Your task to perform on an android device: Open Google Maps Image 0: 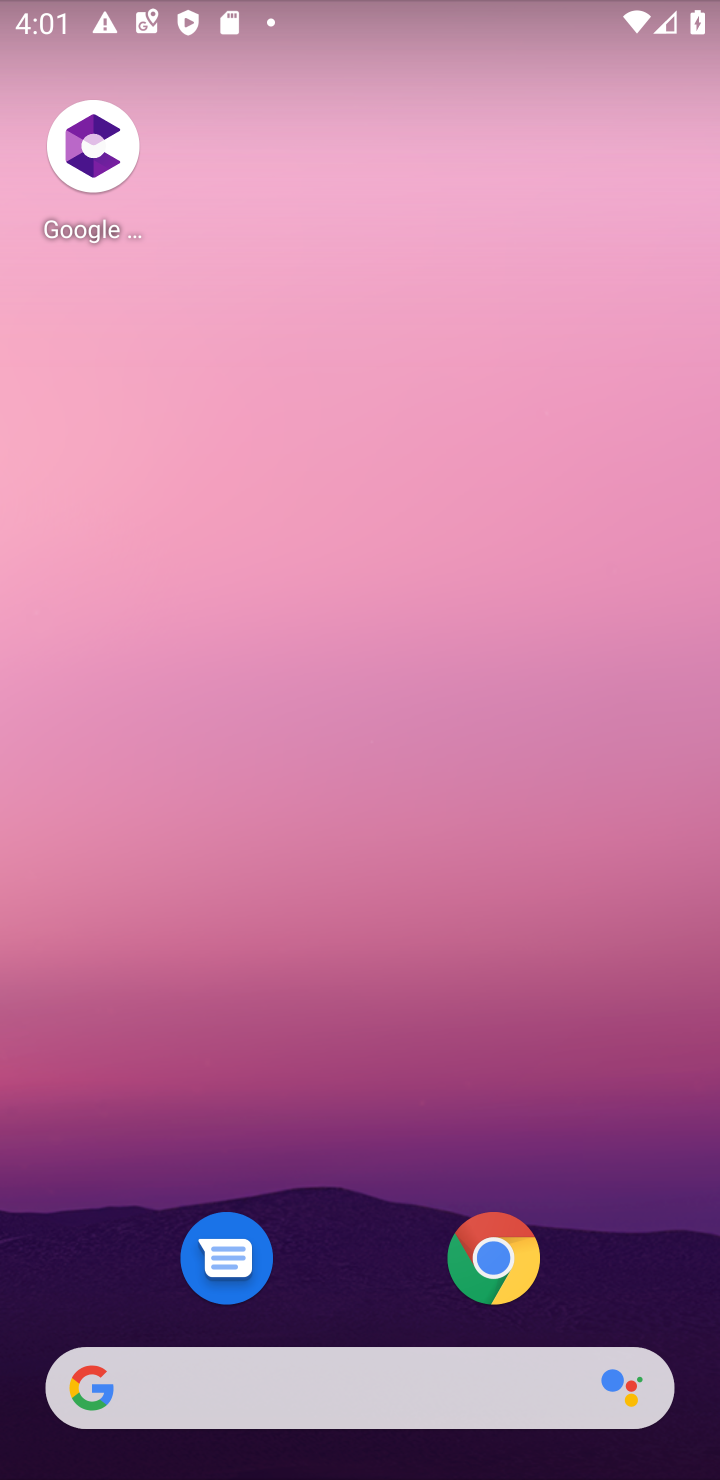
Step 0: drag from (527, 1109) to (485, 561)
Your task to perform on an android device: Open Google Maps Image 1: 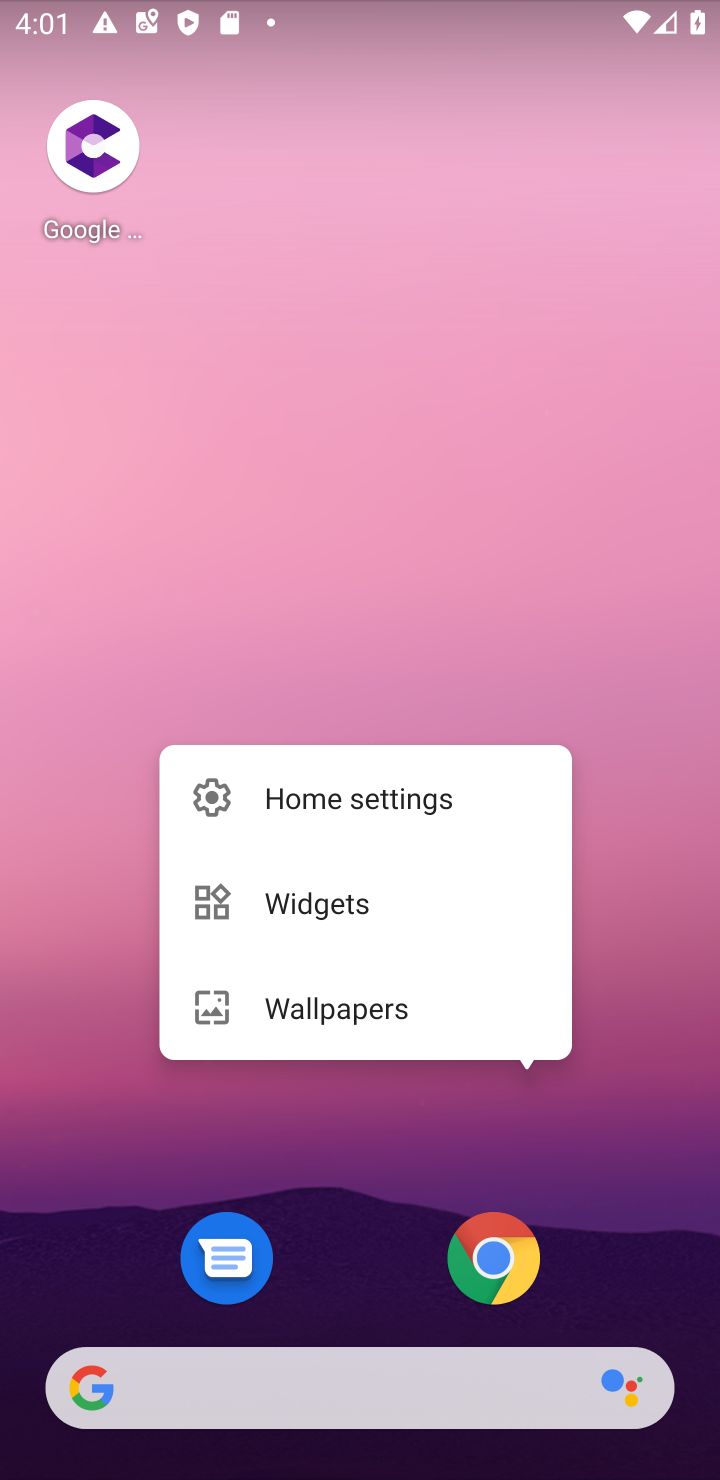
Step 1: click (485, 562)
Your task to perform on an android device: Open Google Maps Image 2: 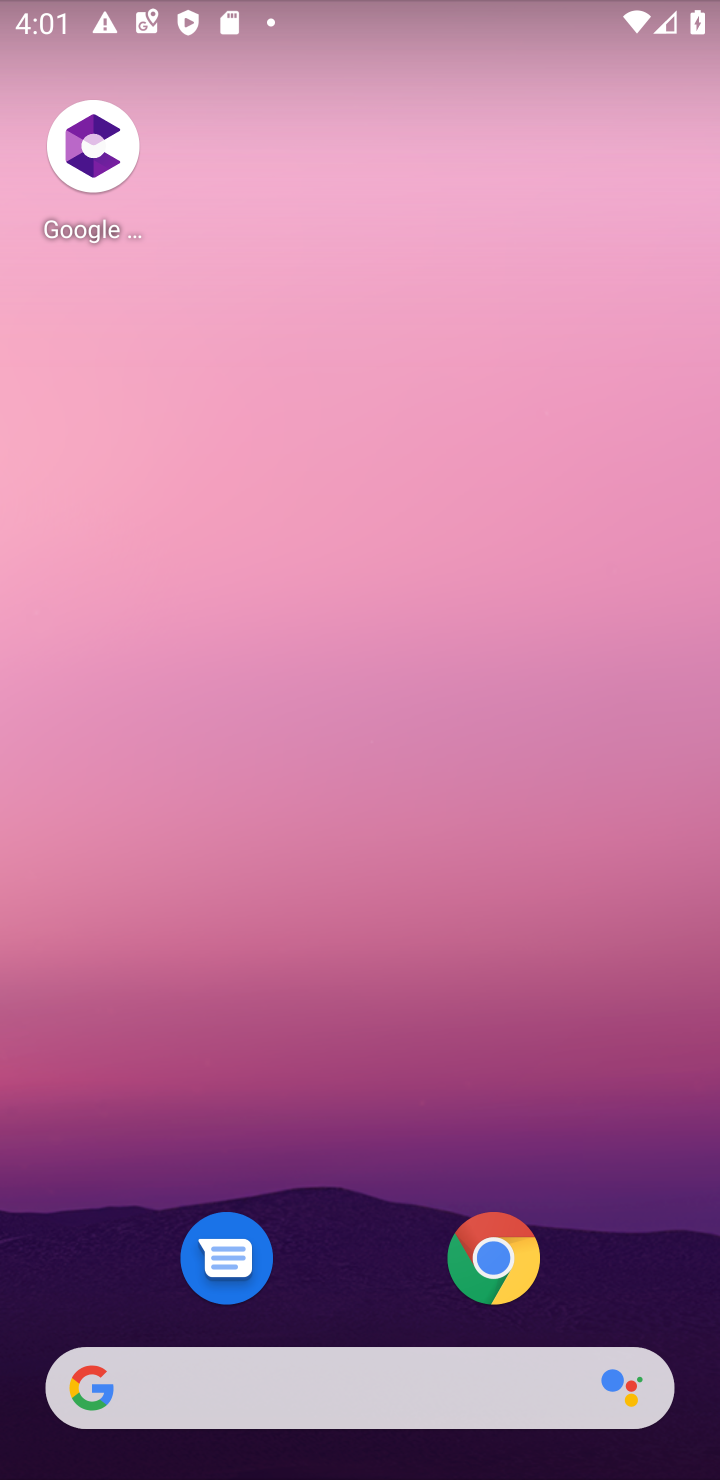
Step 2: drag from (625, 1238) to (678, 371)
Your task to perform on an android device: Open Google Maps Image 3: 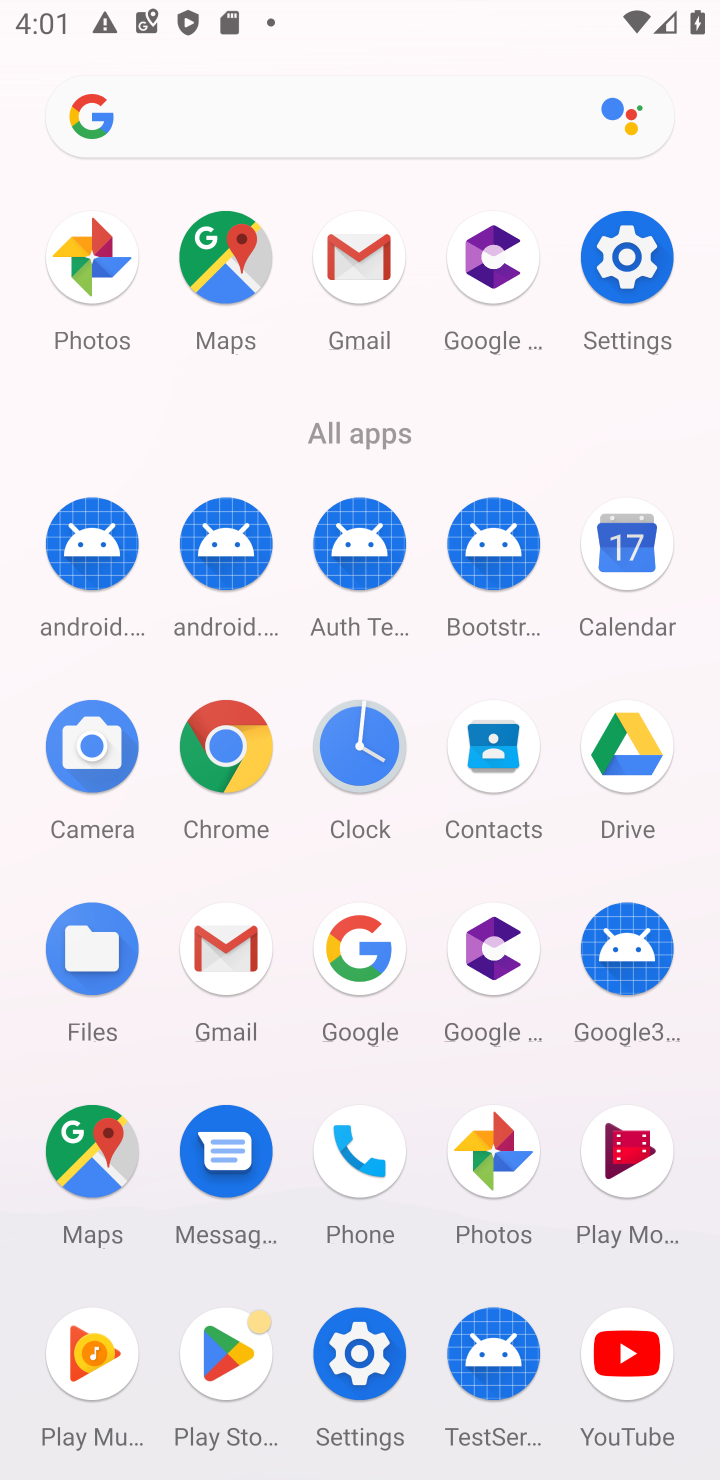
Step 3: click (107, 1132)
Your task to perform on an android device: Open Google Maps Image 4: 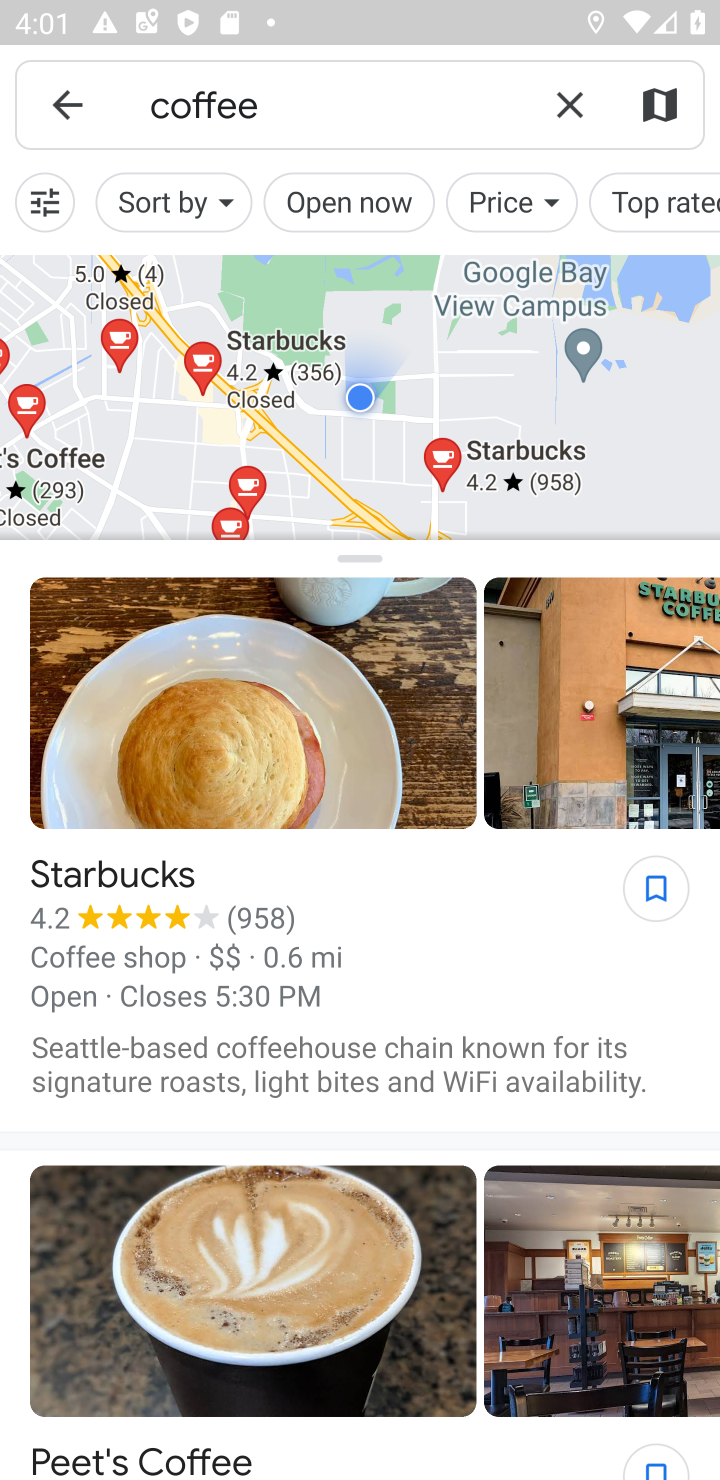
Step 4: task complete